Your task to perform on an android device: open app "Viber Messenger" Image 0: 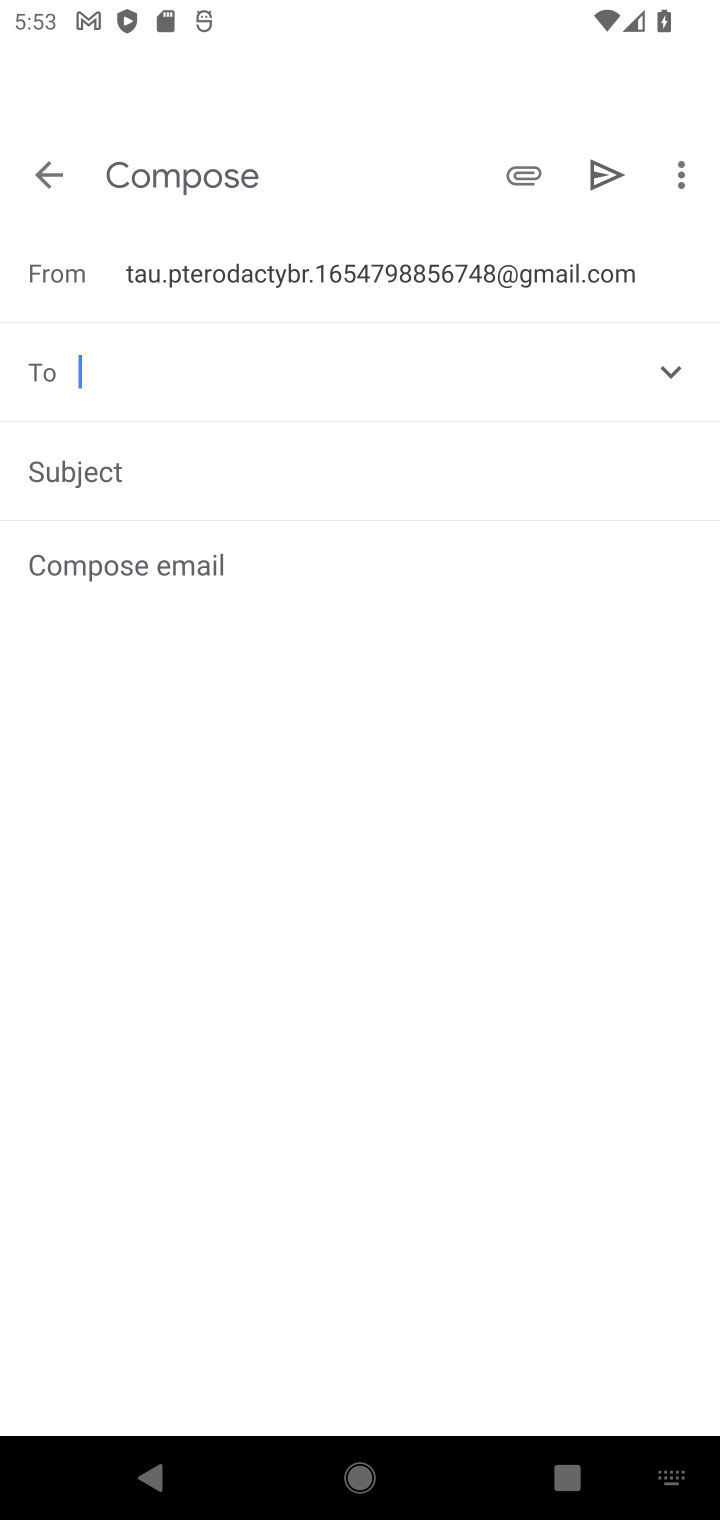
Step 0: press home button
Your task to perform on an android device: open app "Viber Messenger" Image 1: 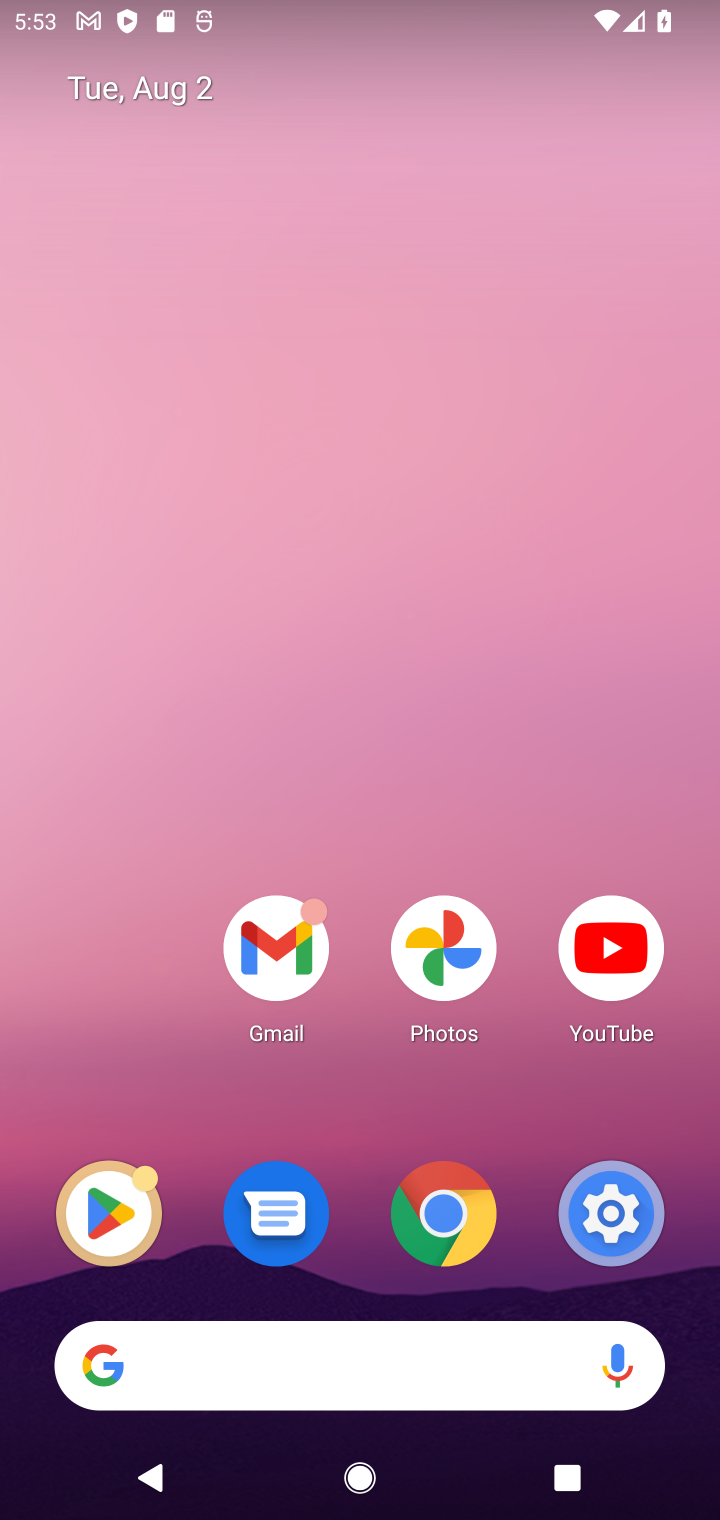
Step 1: click (89, 1194)
Your task to perform on an android device: open app "Viber Messenger" Image 2: 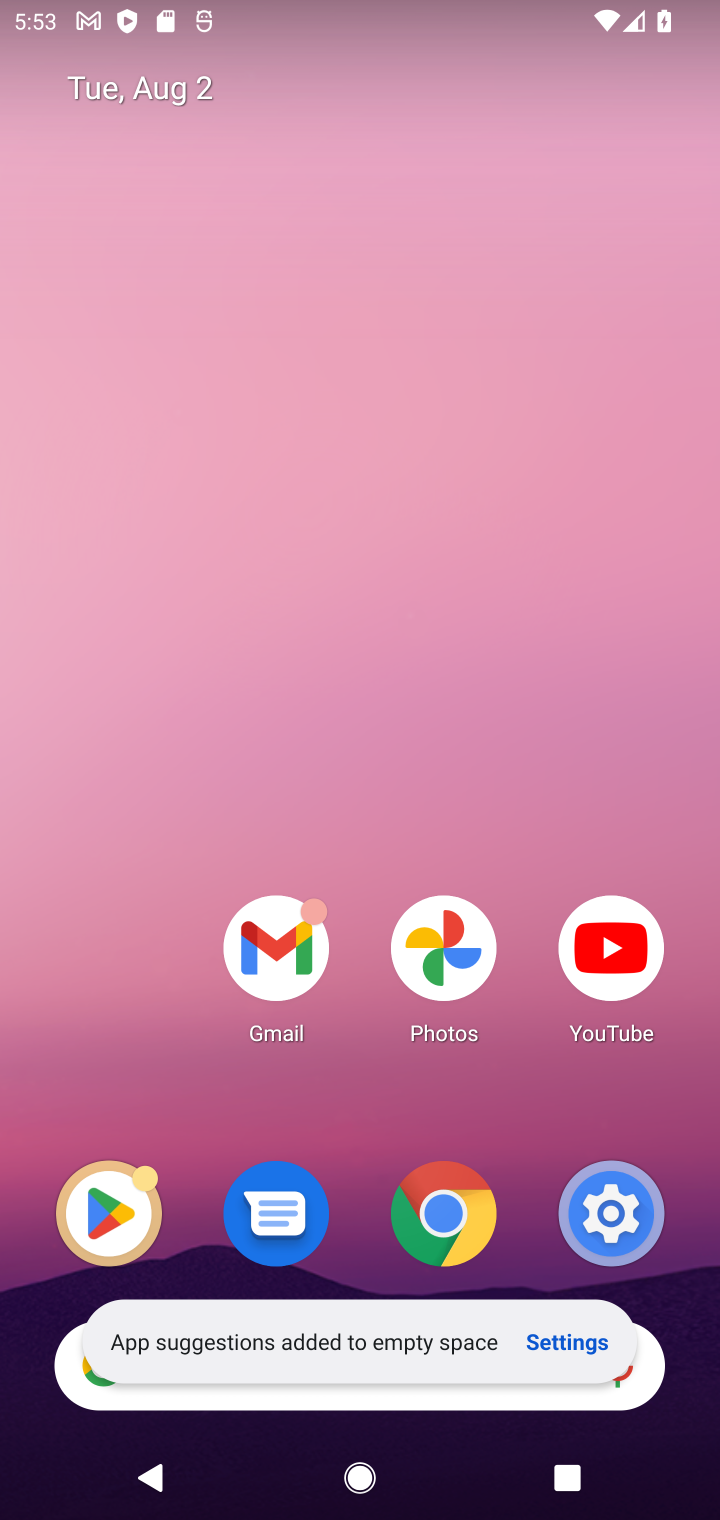
Step 2: click (89, 1194)
Your task to perform on an android device: open app "Viber Messenger" Image 3: 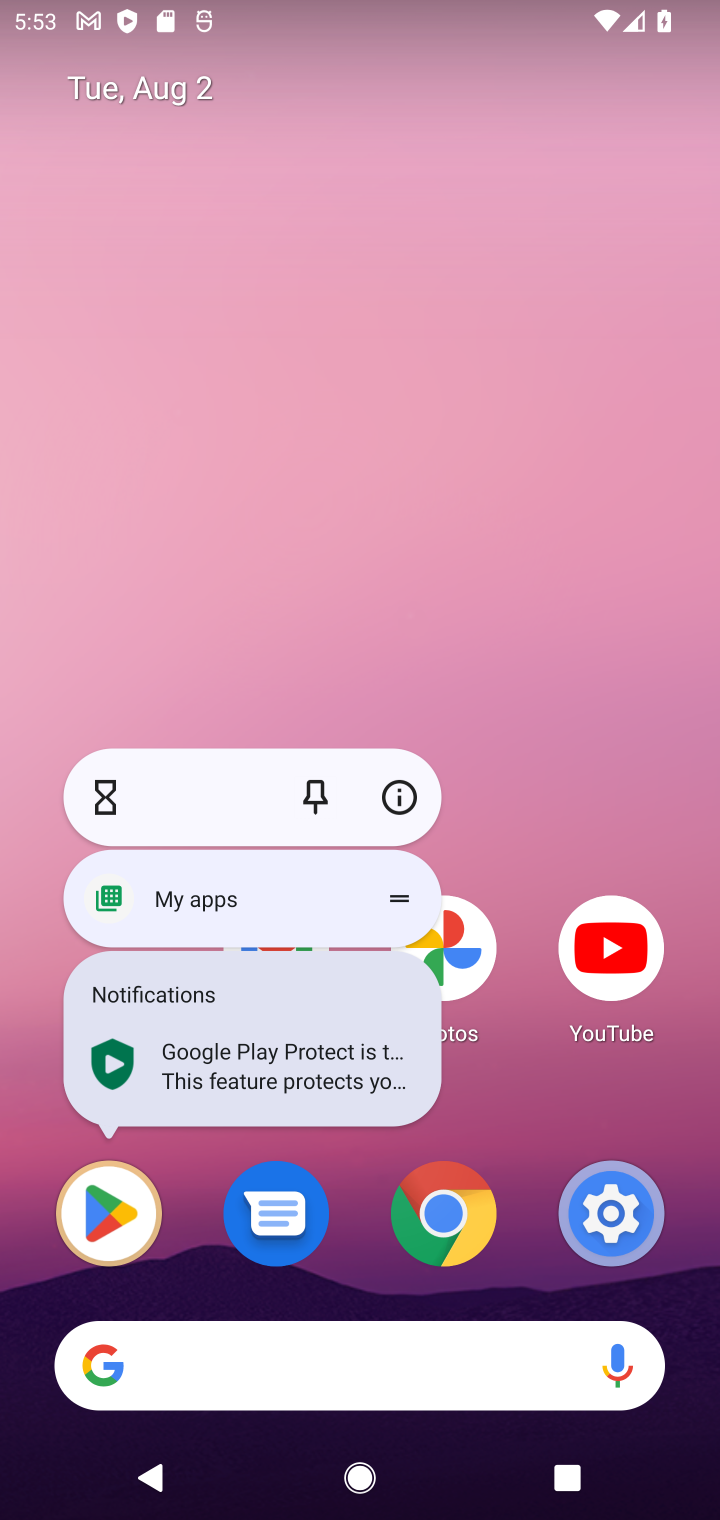
Step 3: click (92, 1194)
Your task to perform on an android device: open app "Viber Messenger" Image 4: 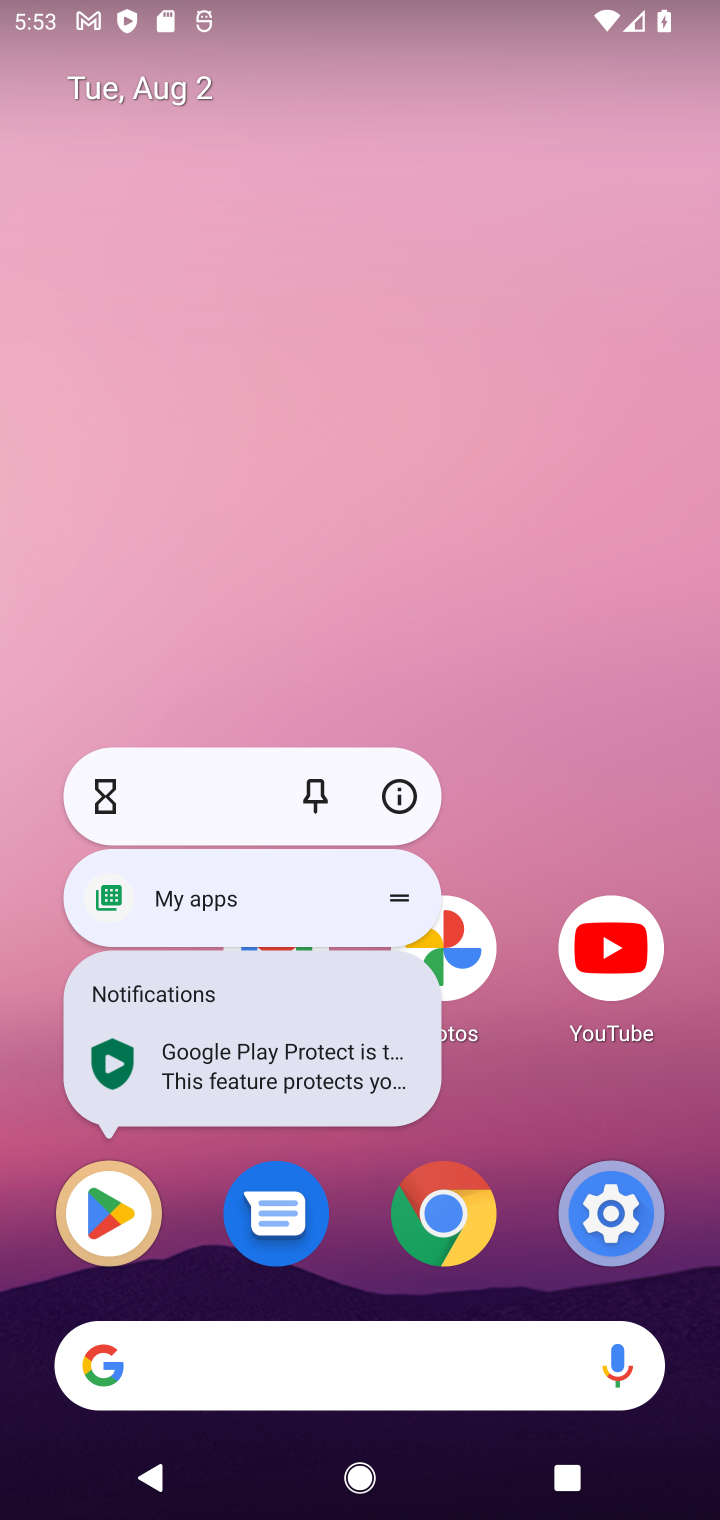
Step 4: click (174, 1211)
Your task to perform on an android device: open app "Viber Messenger" Image 5: 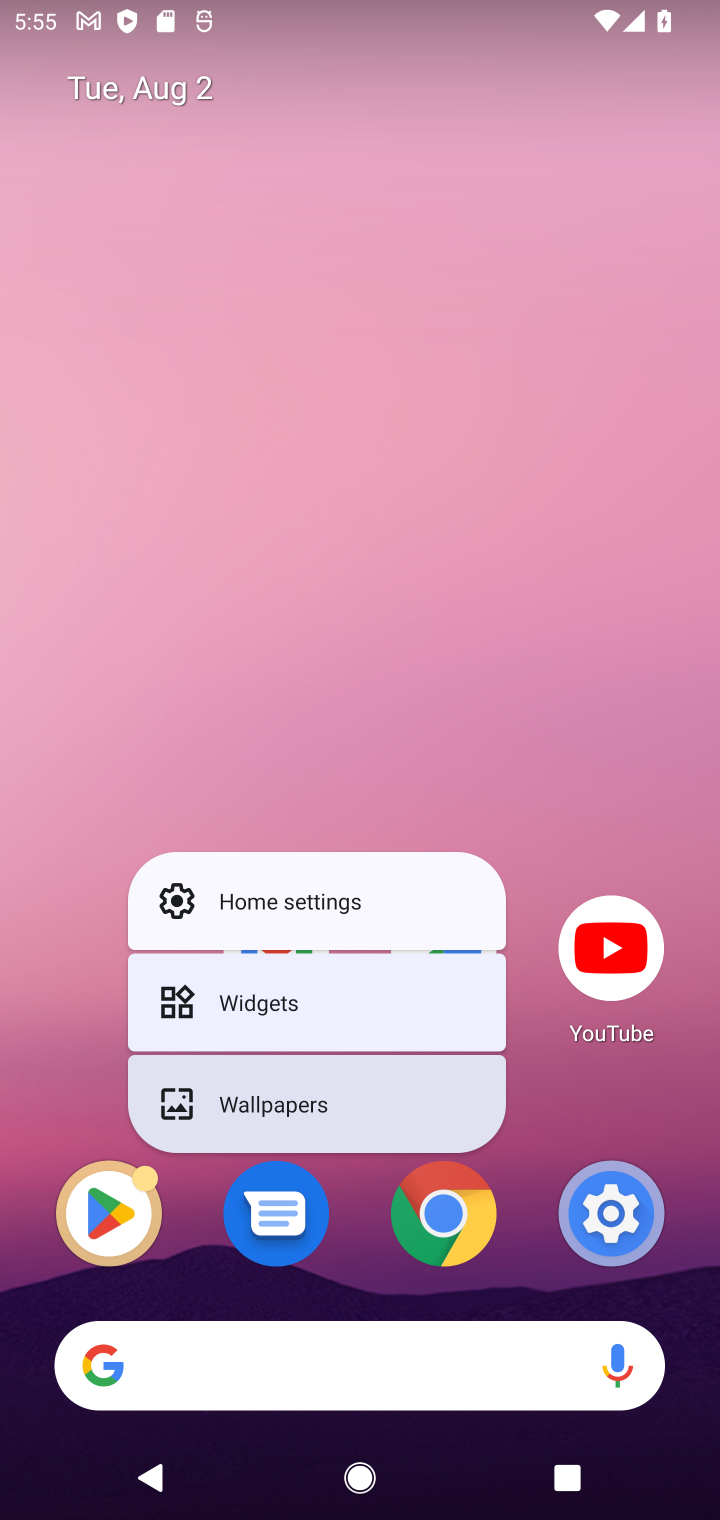
Step 5: click (174, 1211)
Your task to perform on an android device: open app "Viber Messenger" Image 6: 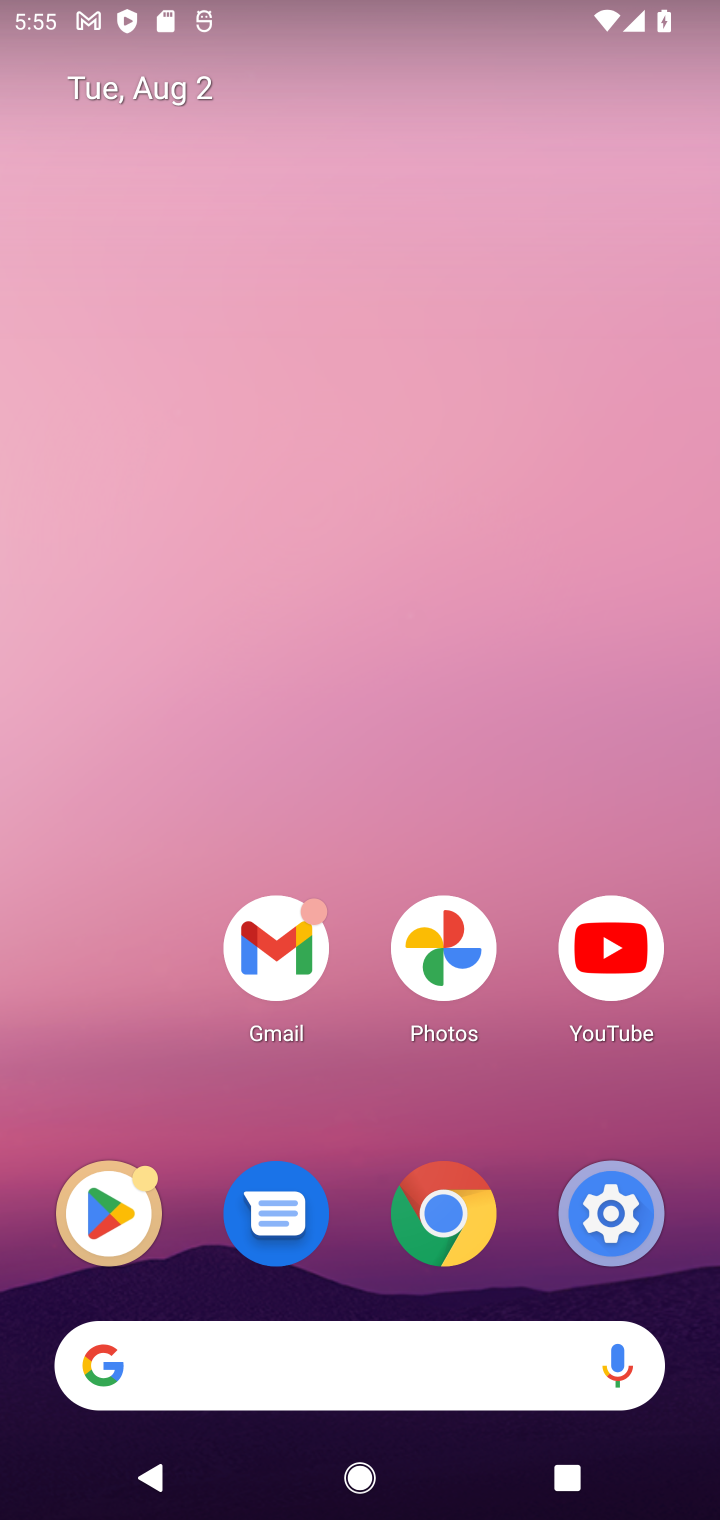
Step 6: click (81, 1250)
Your task to perform on an android device: open app "Viber Messenger" Image 7: 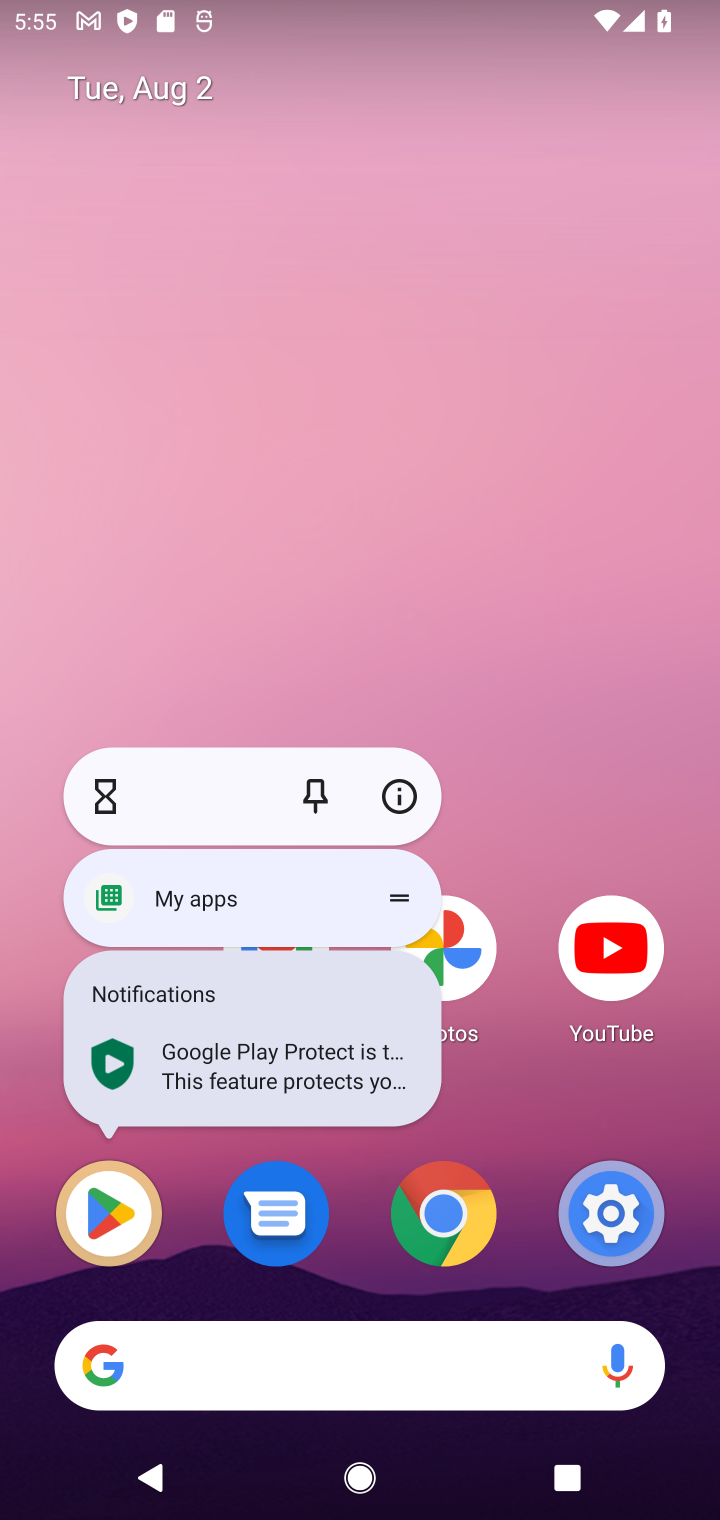
Step 7: click (123, 1200)
Your task to perform on an android device: open app "Viber Messenger" Image 8: 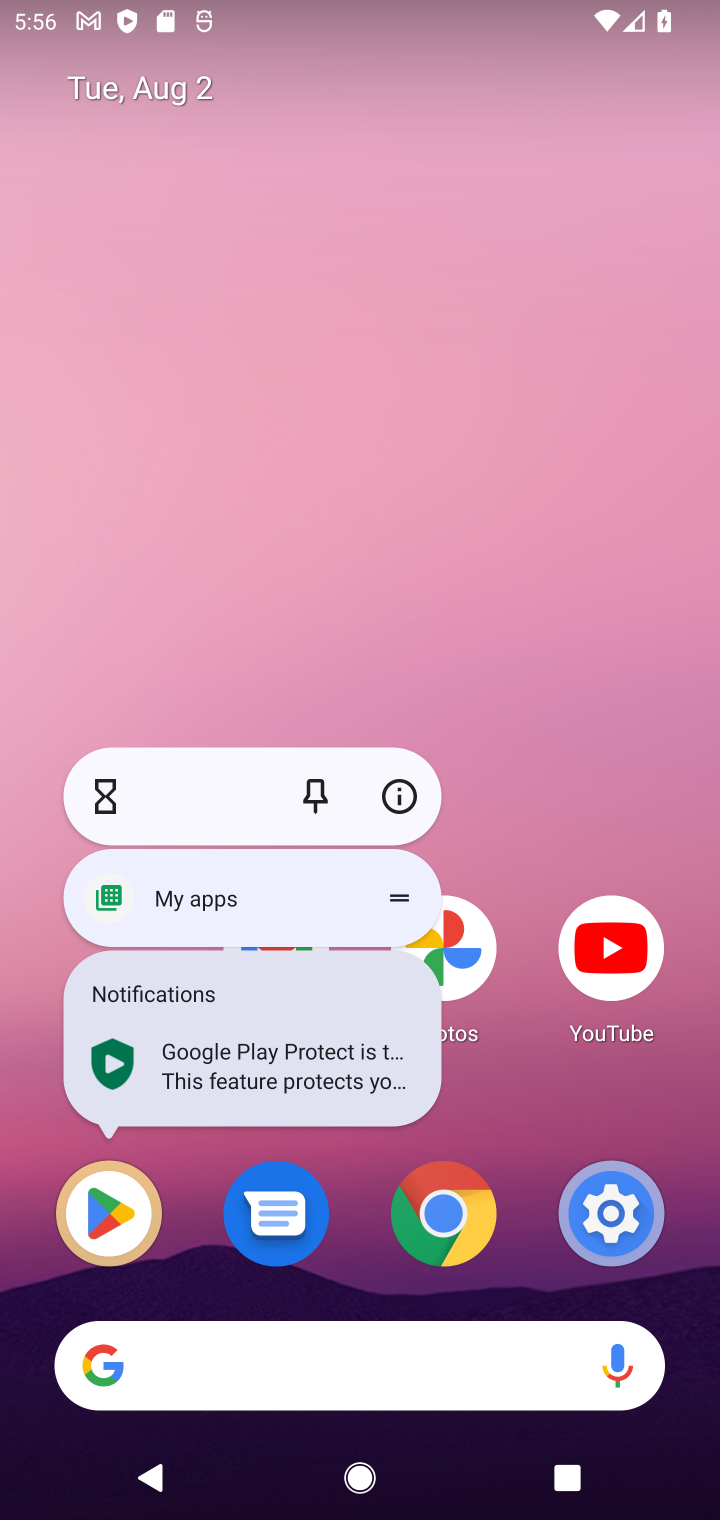
Step 8: click (123, 1200)
Your task to perform on an android device: open app "Viber Messenger" Image 9: 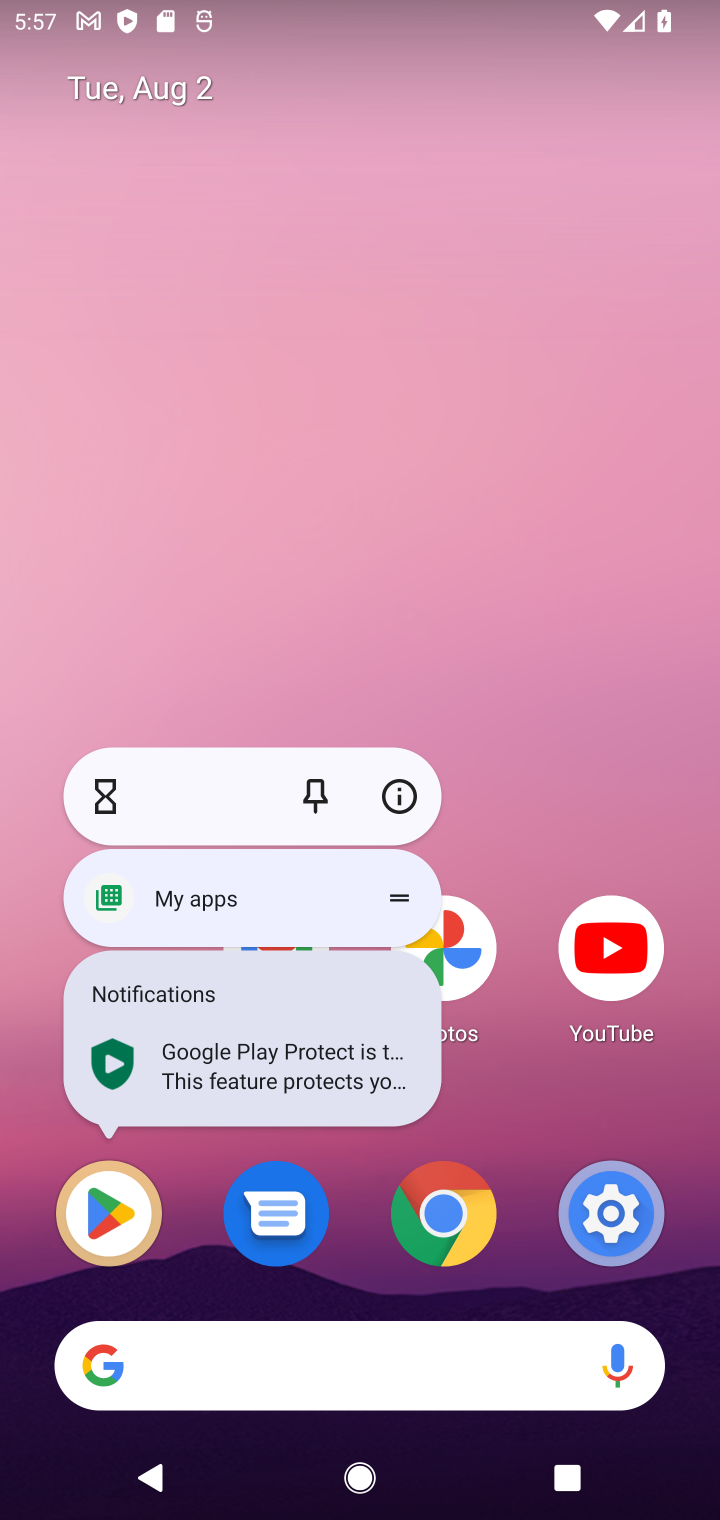
Step 9: click (123, 1237)
Your task to perform on an android device: open app "Viber Messenger" Image 10: 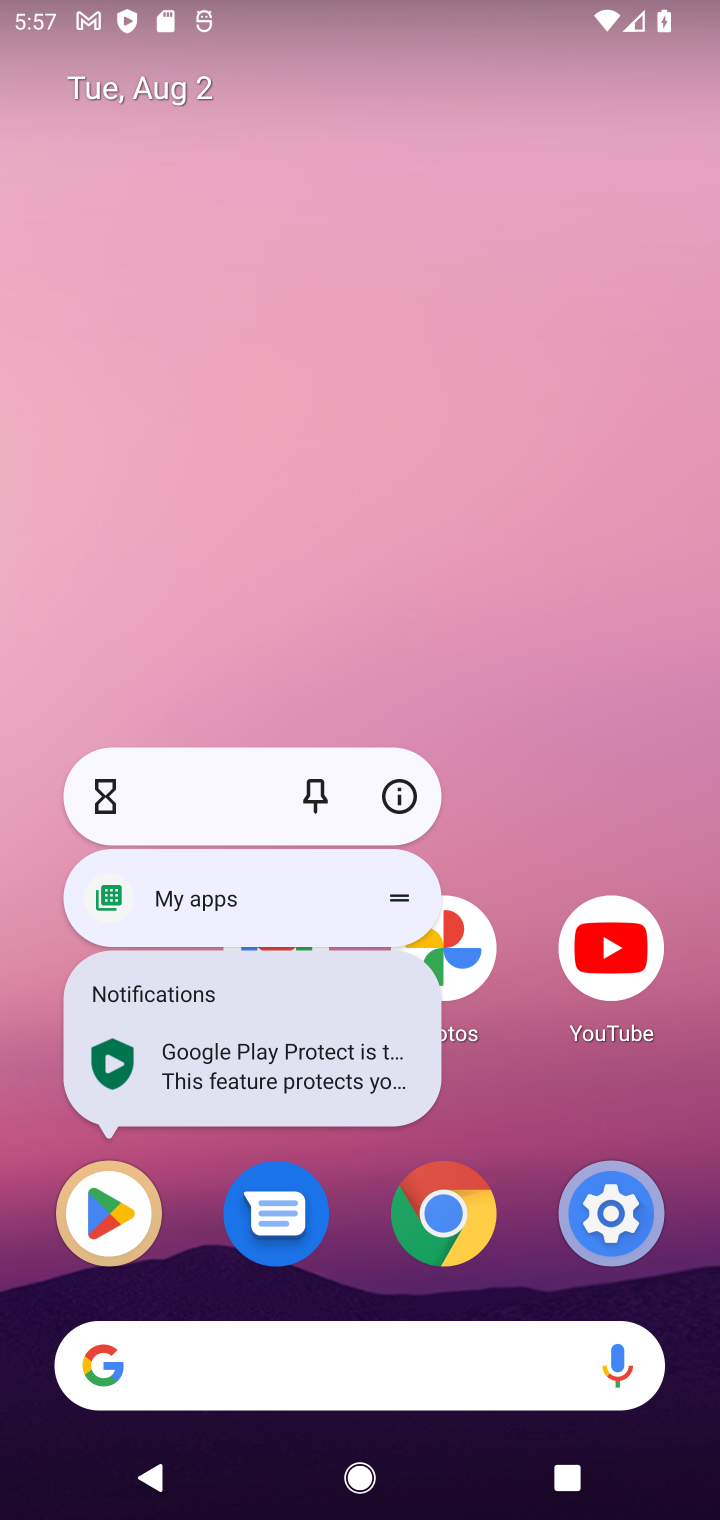
Step 10: click (79, 1201)
Your task to perform on an android device: open app "Viber Messenger" Image 11: 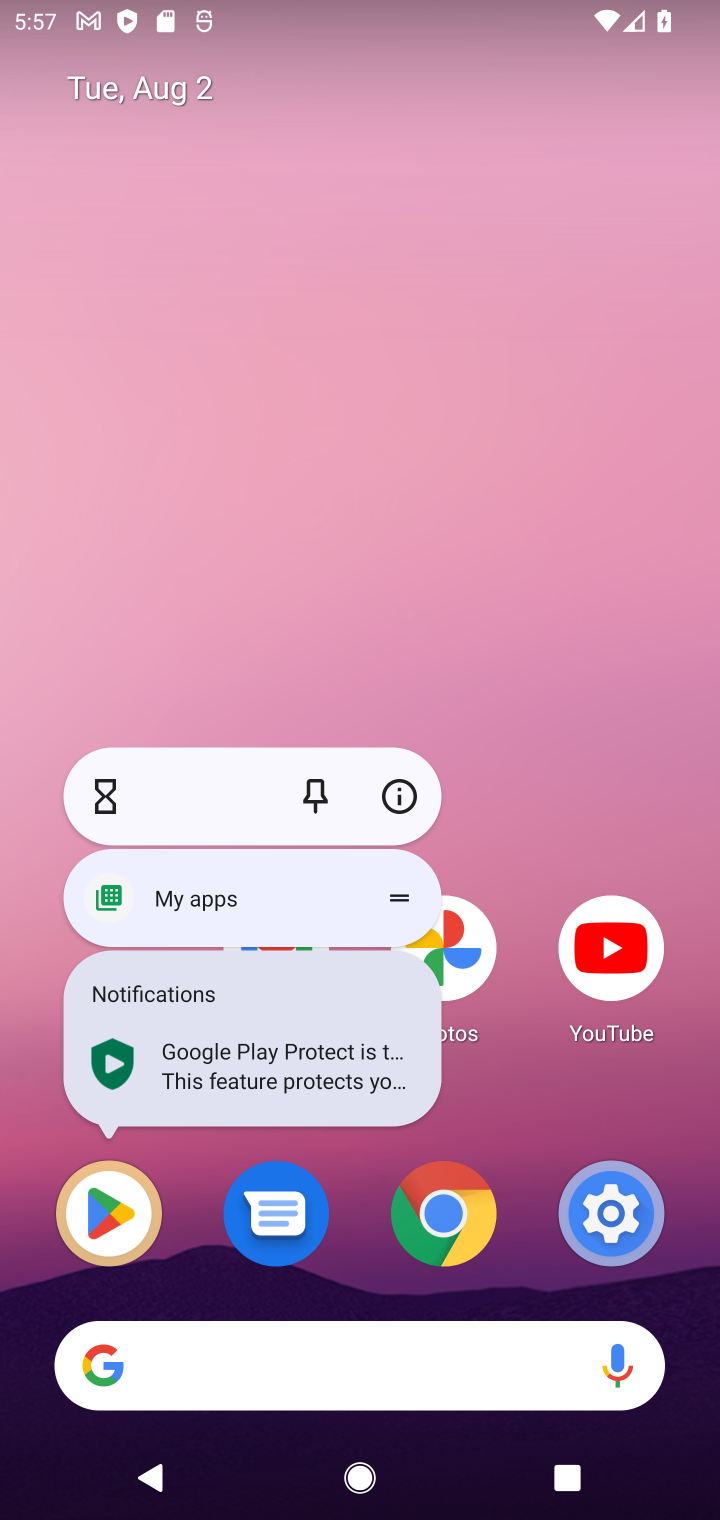
Step 11: drag from (169, 1248) to (34, 1252)
Your task to perform on an android device: open app "Viber Messenger" Image 12: 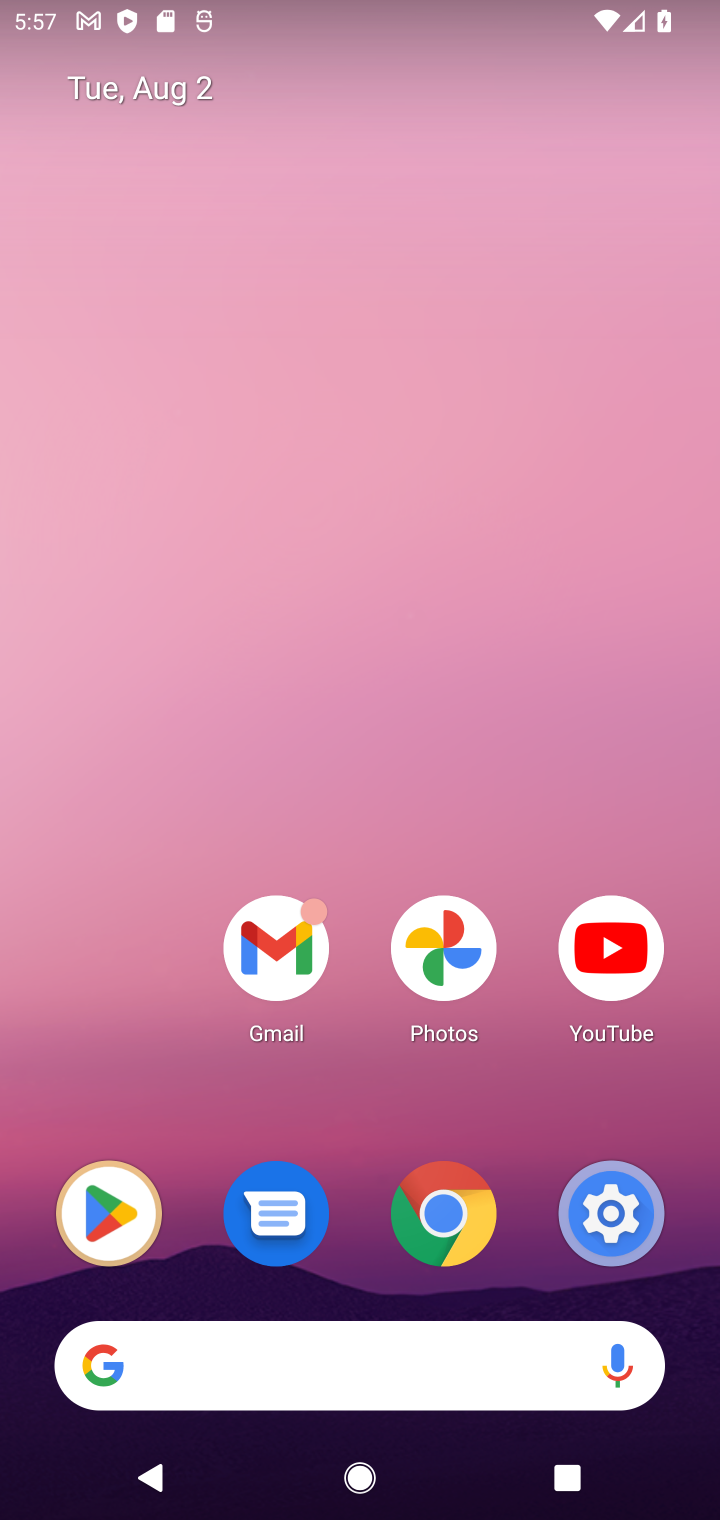
Step 12: drag from (48, 1222) to (118, 1204)
Your task to perform on an android device: open app "Viber Messenger" Image 13: 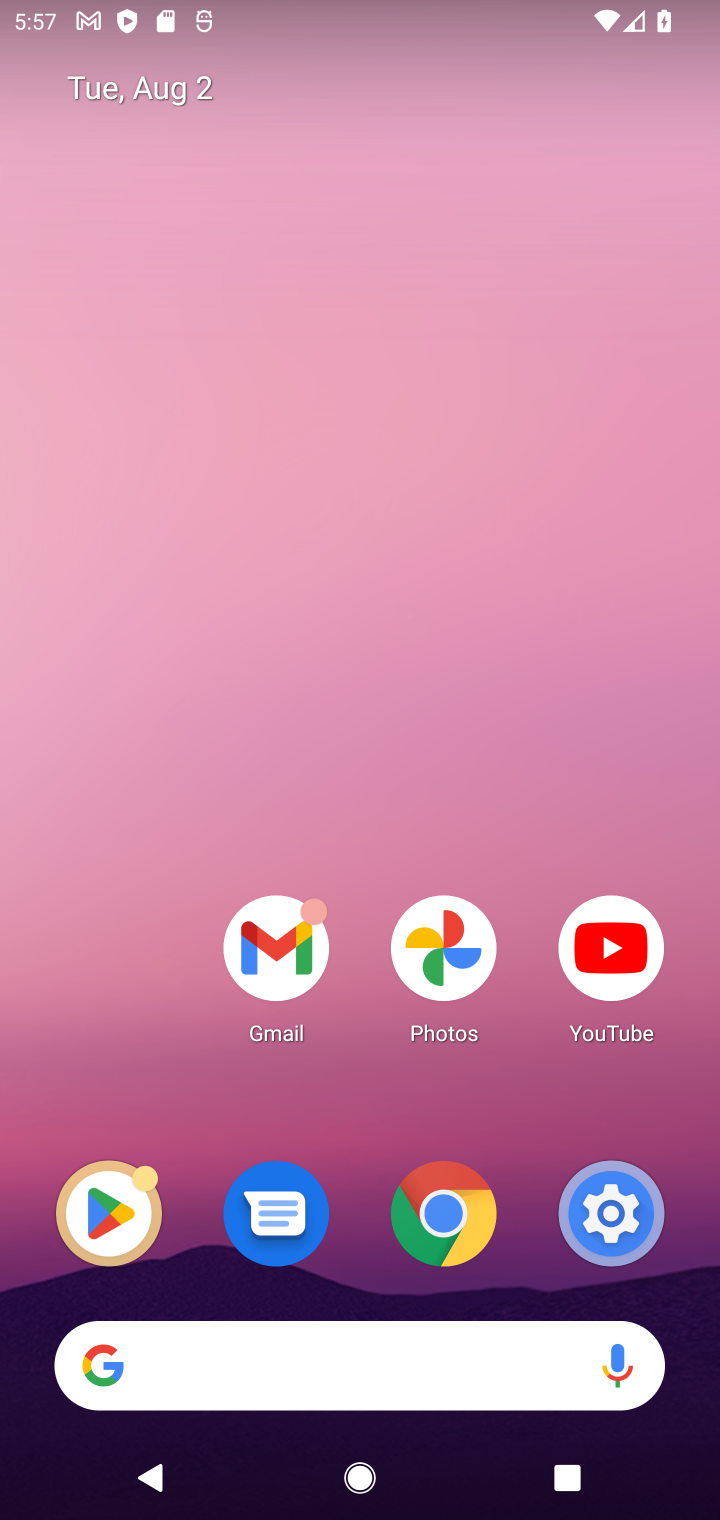
Step 13: click (118, 1204)
Your task to perform on an android device: open app "Viber Messenger" Image 14: 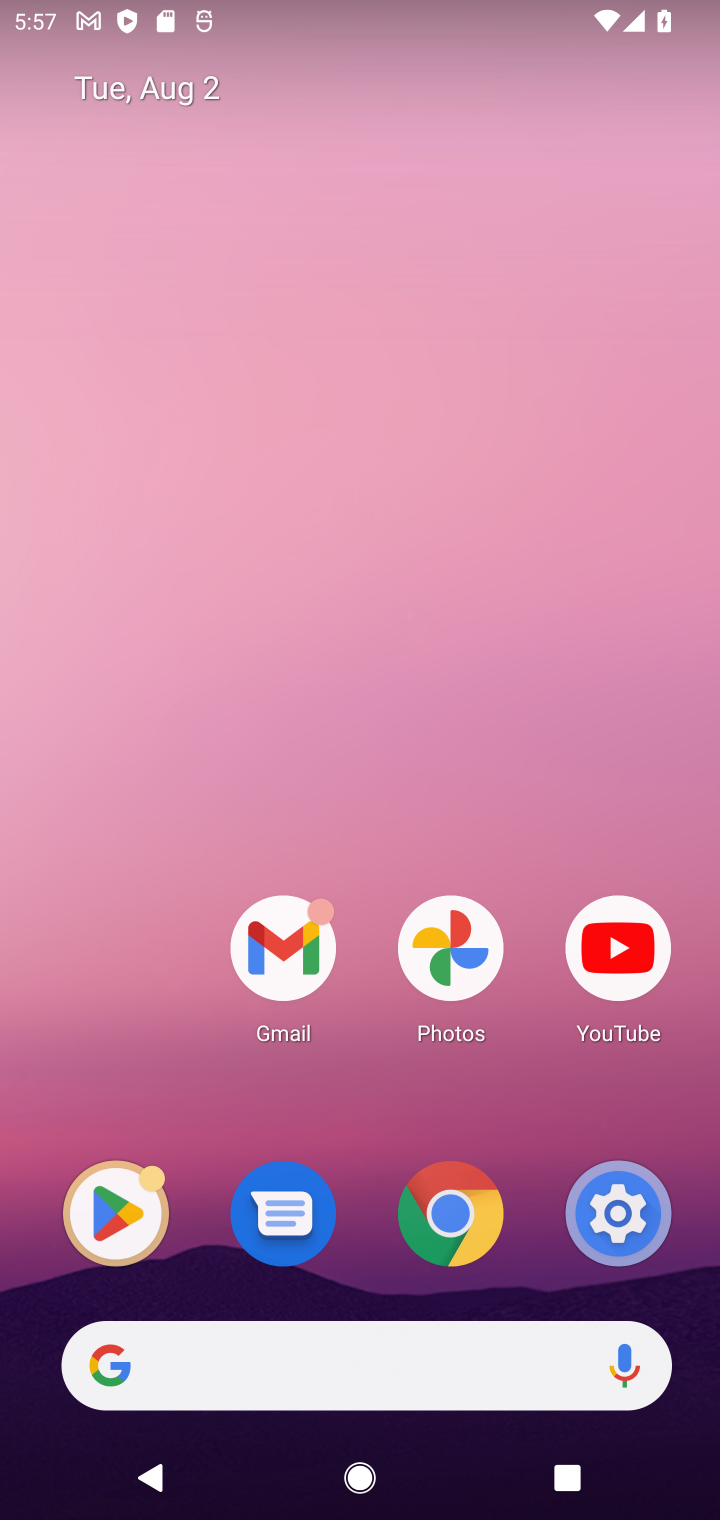
Step 14: click (118, 1247)
Your task to perform on an android device: open app "Viber Messenger" Image 15: 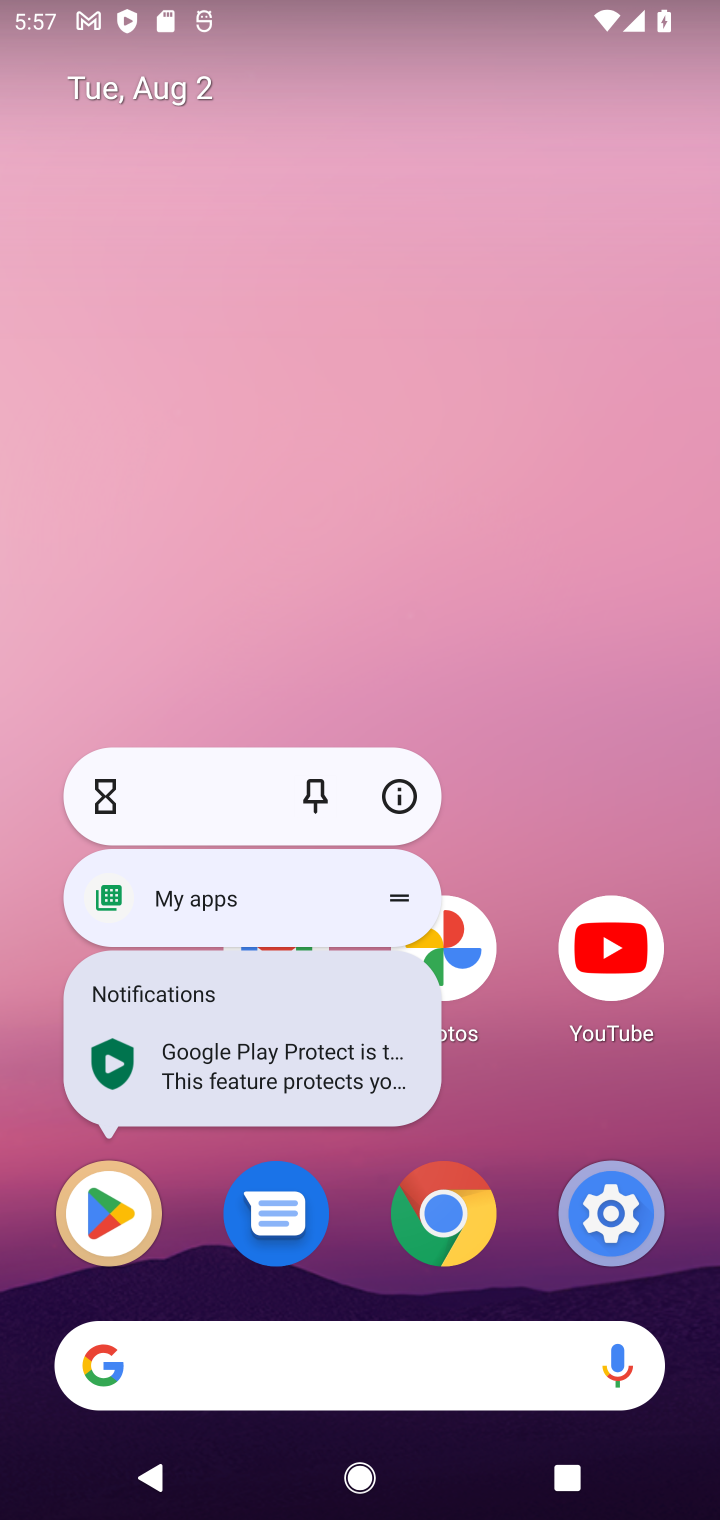
Step 15: click (43, 1247)
Your task to perform on an android device: open app "Viber Messenger" Image 16: 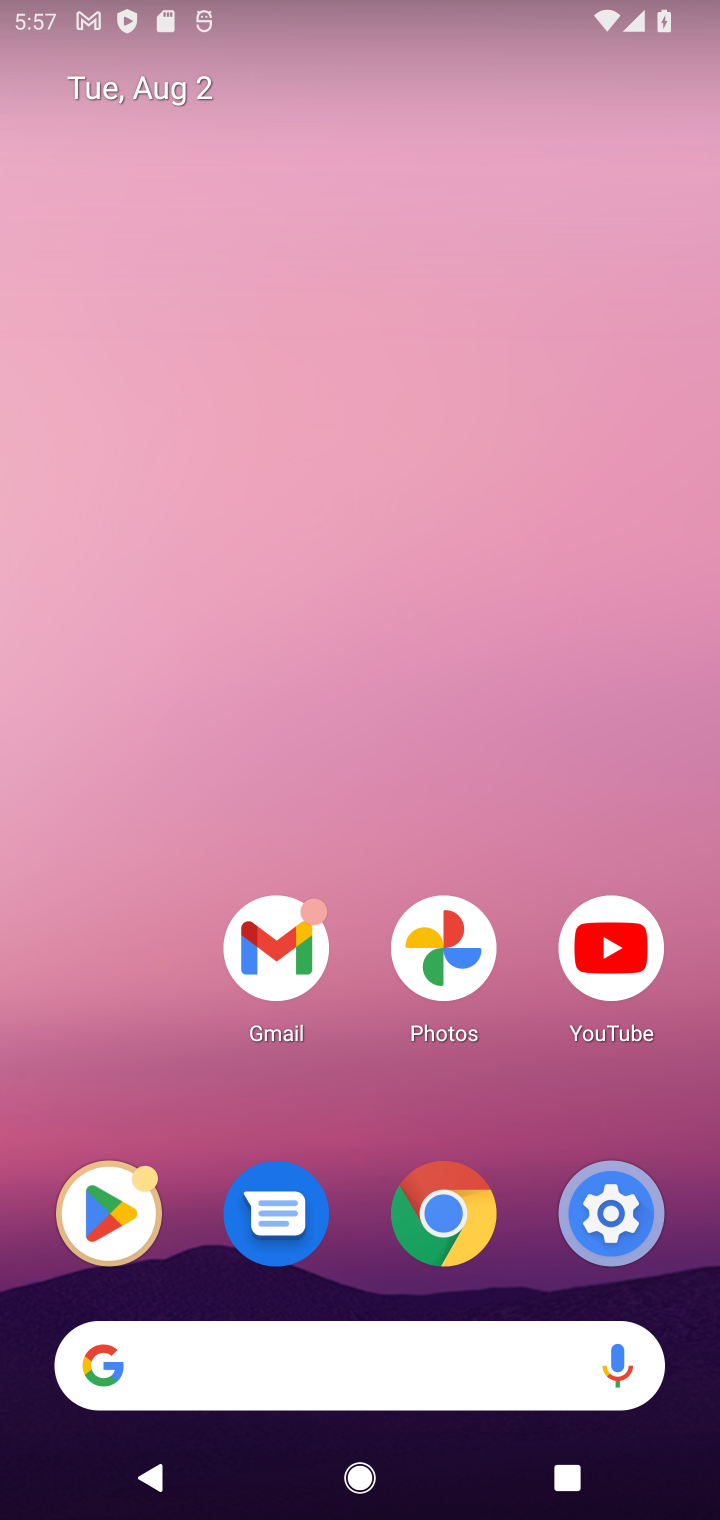
Step 16: click (130, 1239)
Your task to perform on an android device: open app "Viber Messenger" Image 17: 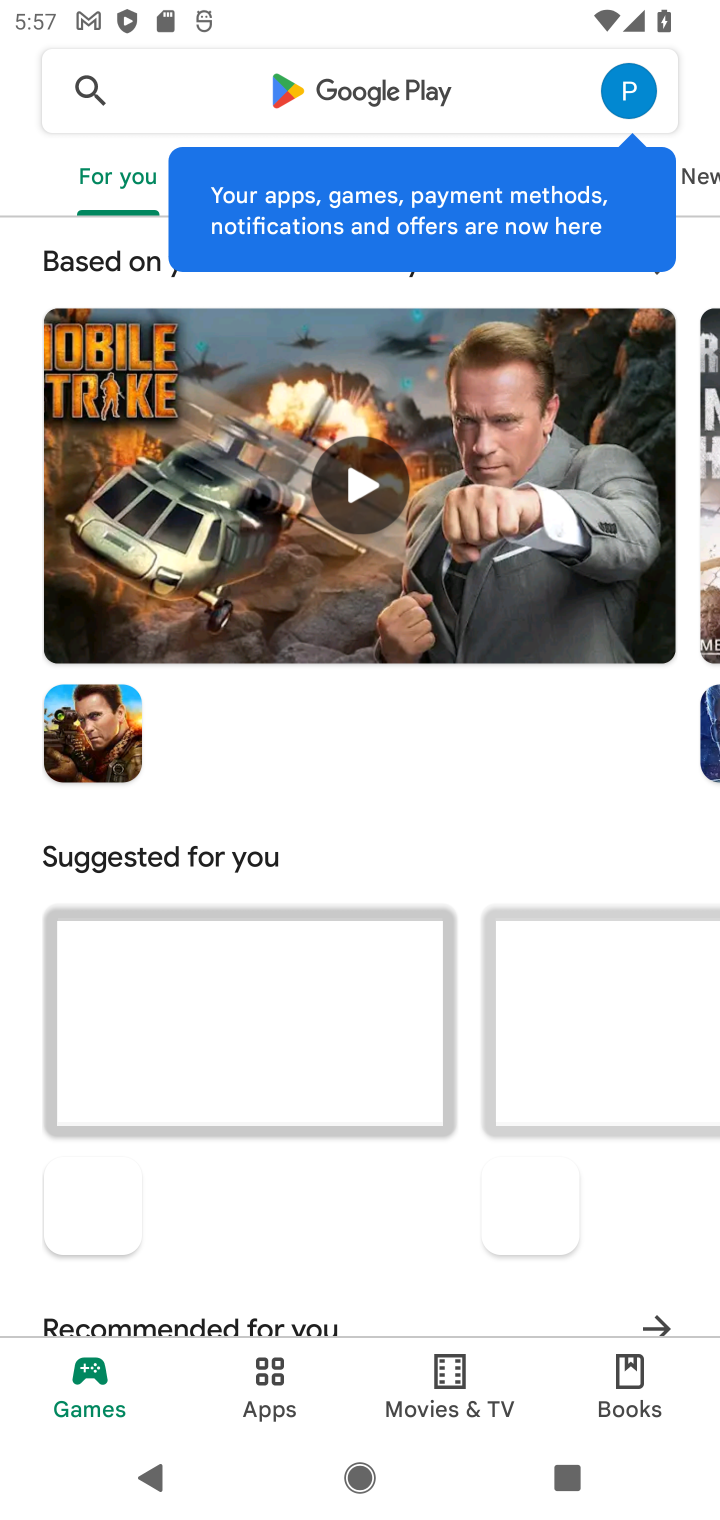
Step 17: click (470, 89)
Your task to perform on an android device: open app "Viber Messenger" Image 18: 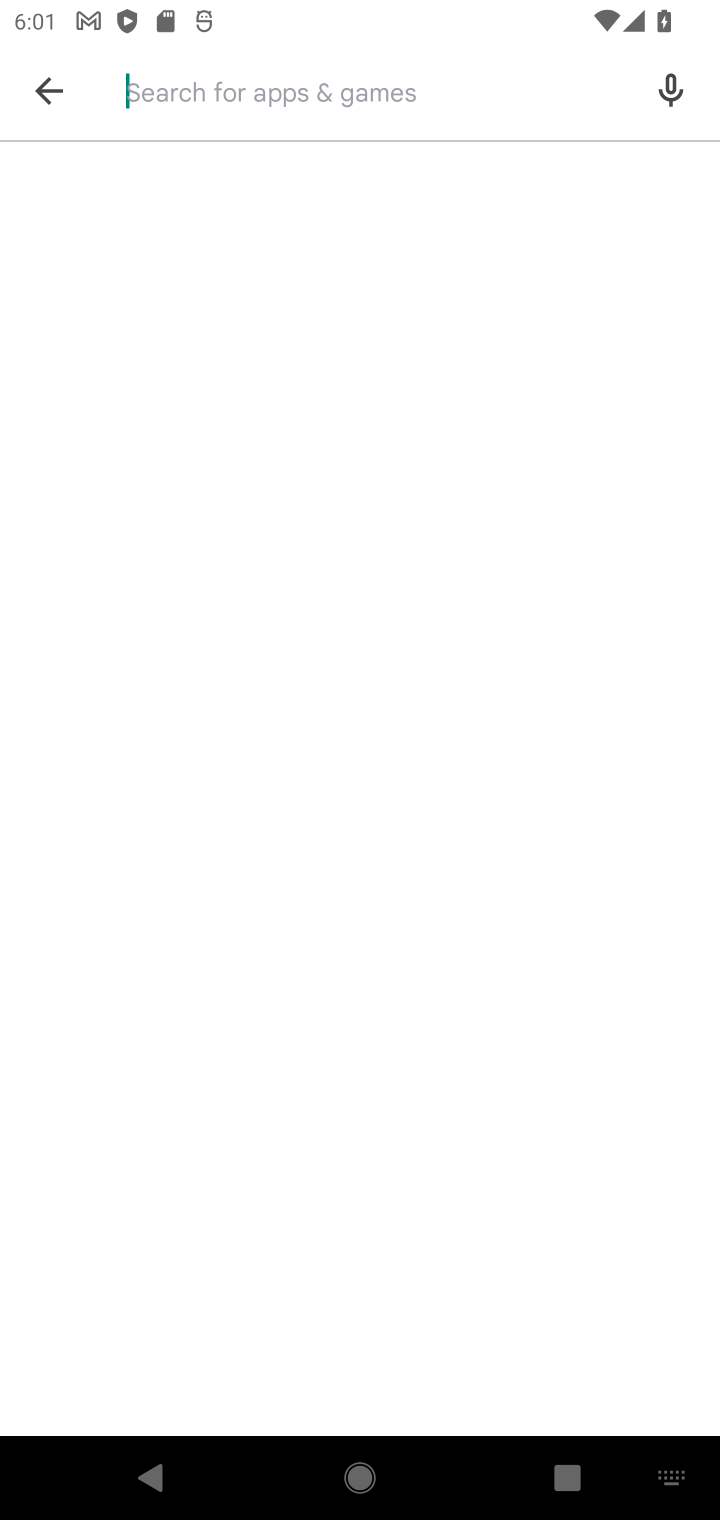
Step 18: type "viber messenger"
Your task to perform on an android device: open app "Viber Messenger" Image 19: 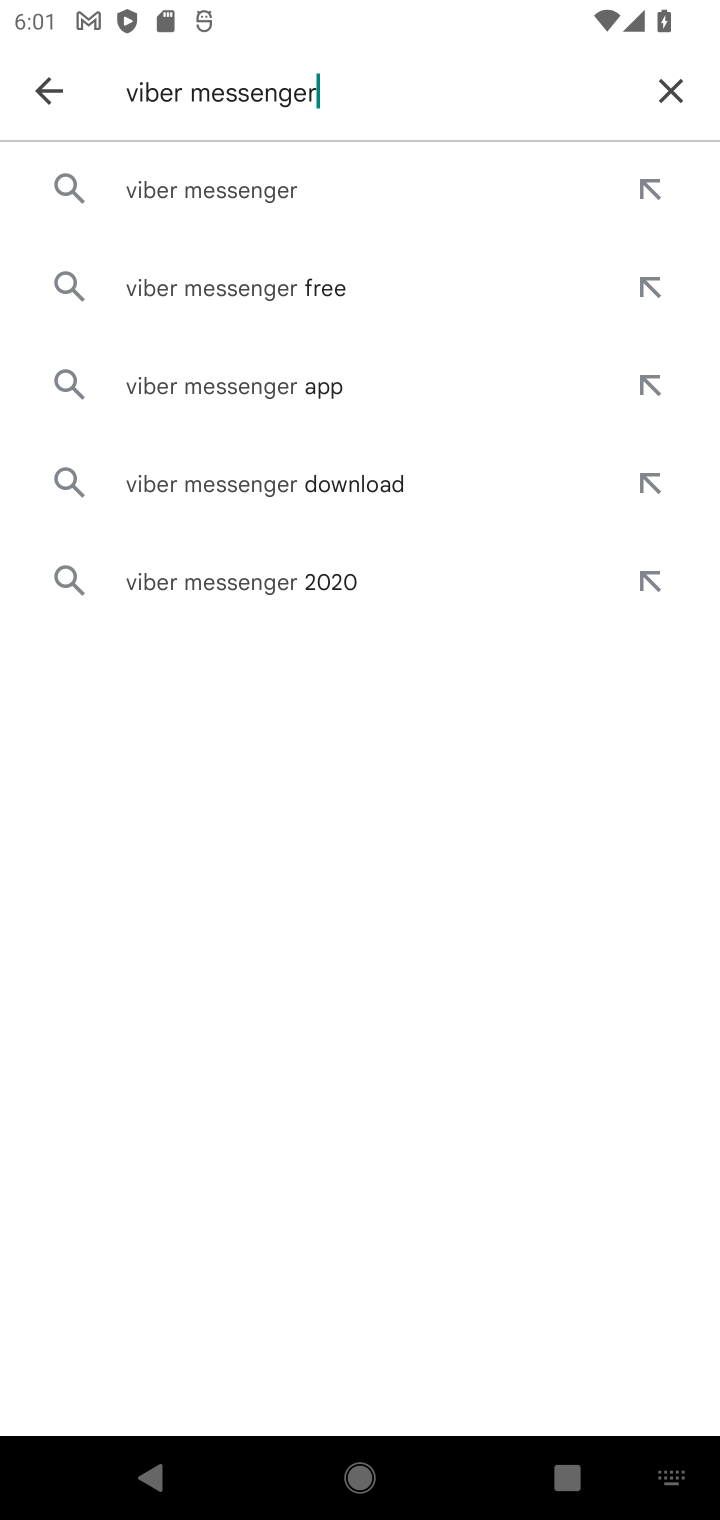
Step 19: click (363, 133)
Your task to perform on an android device: open app "Viber Messenger" Image 20: 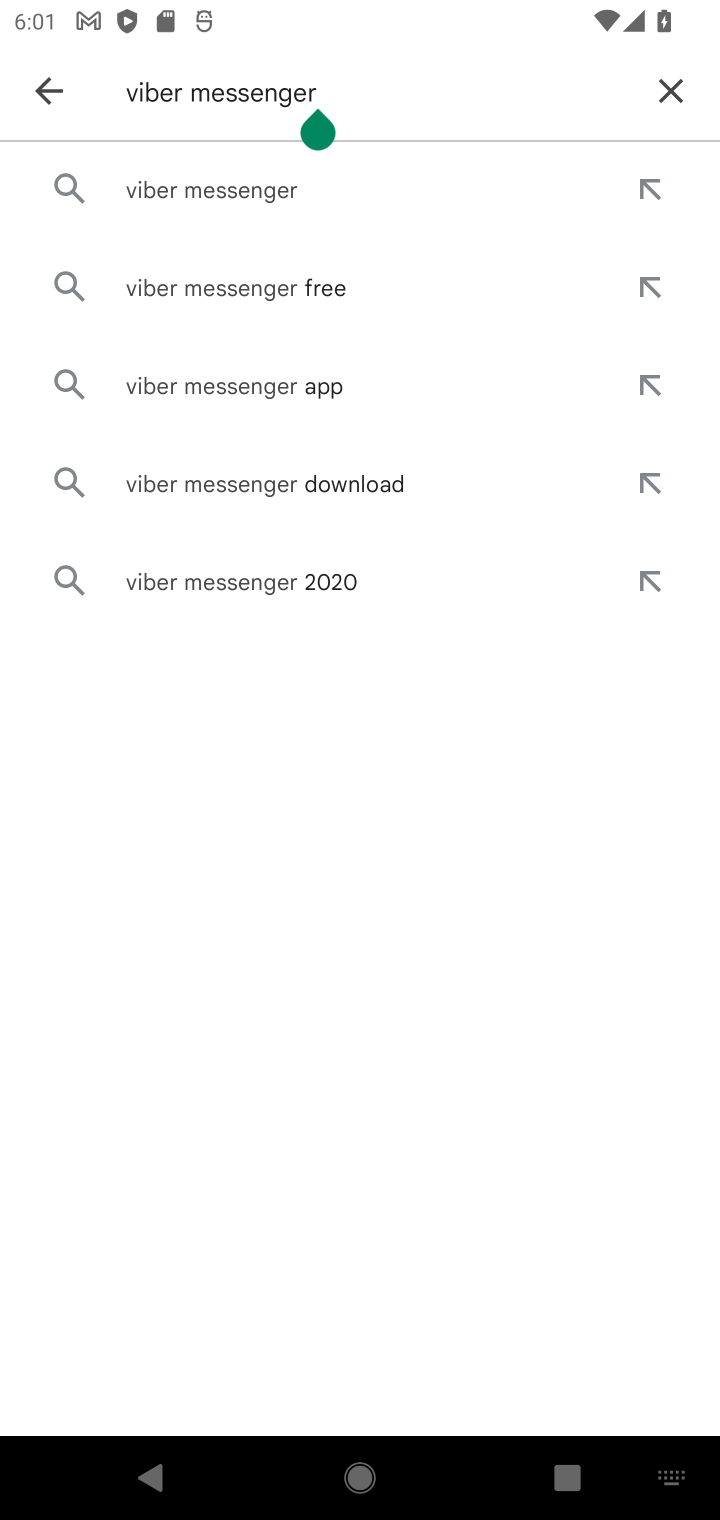
Step 20: click (359, 208)
Your task to perform on an android device: open app "Viber Messenger" Image 21: 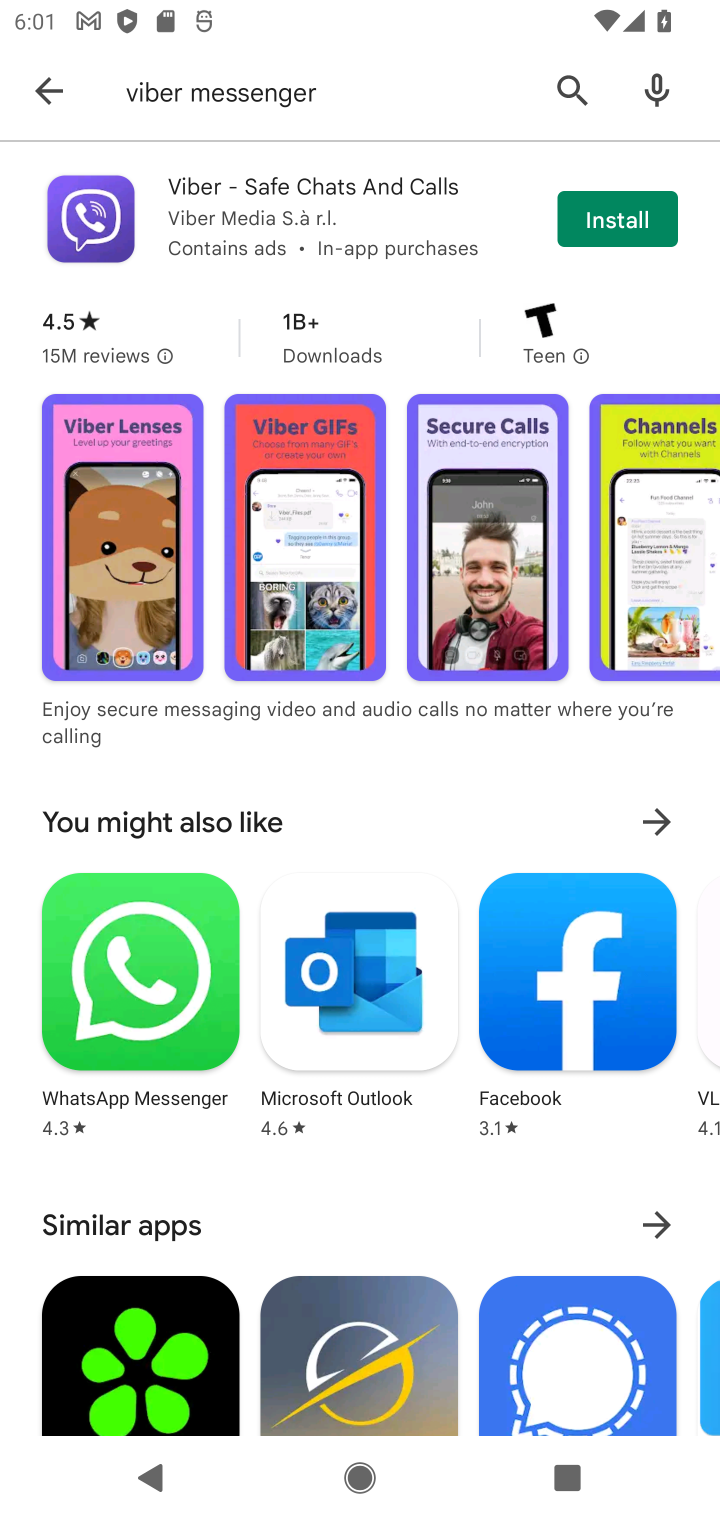
Step 21: press enter
Your task to perform on an android device: open app "Viber Messenger" Image 22: 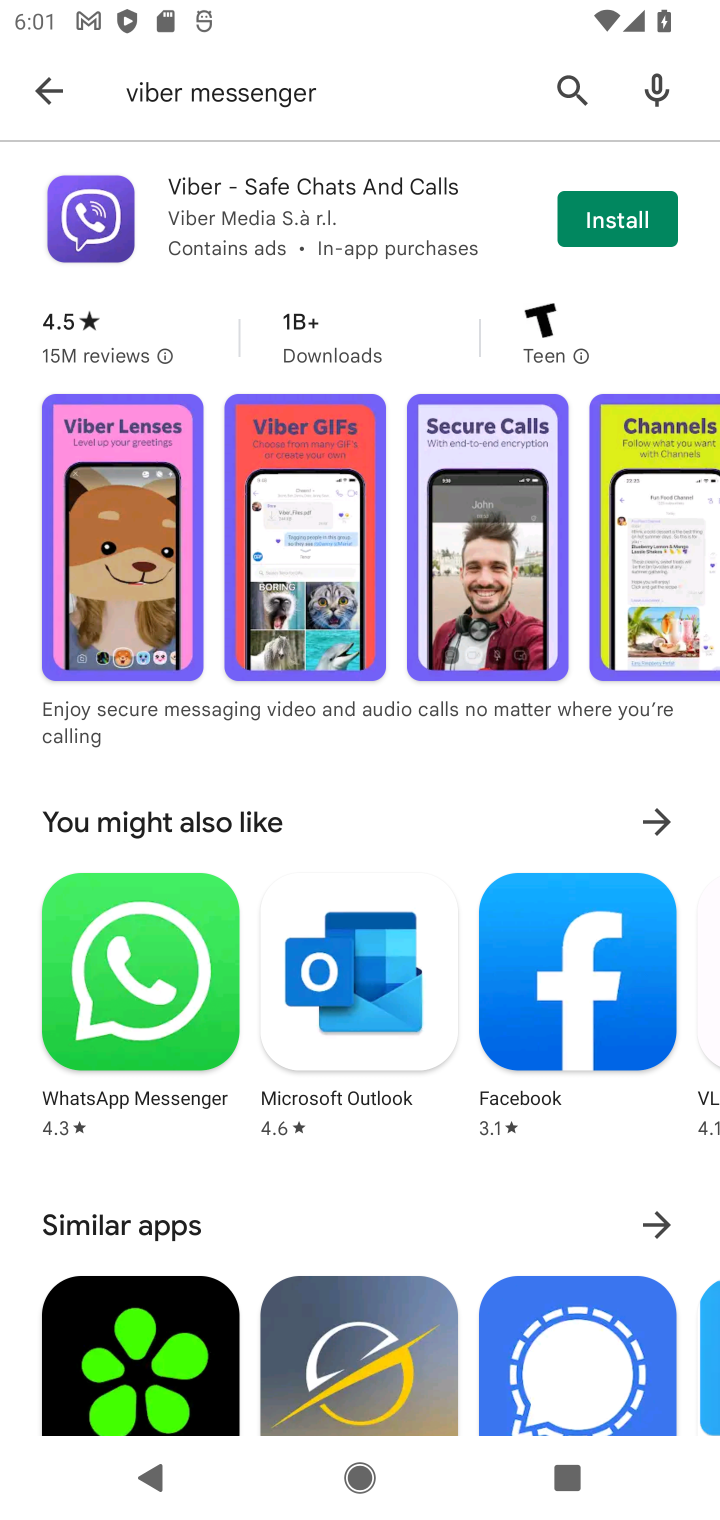
Step 22: task complete